Your task to perform on an android device: toggle notification dots Image 0: 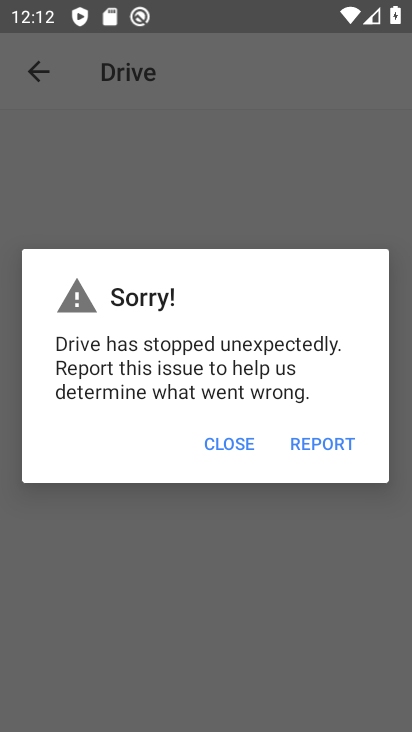
Step 0: press home button
Your task to perform on an android device: toggle notification dots Image 1: 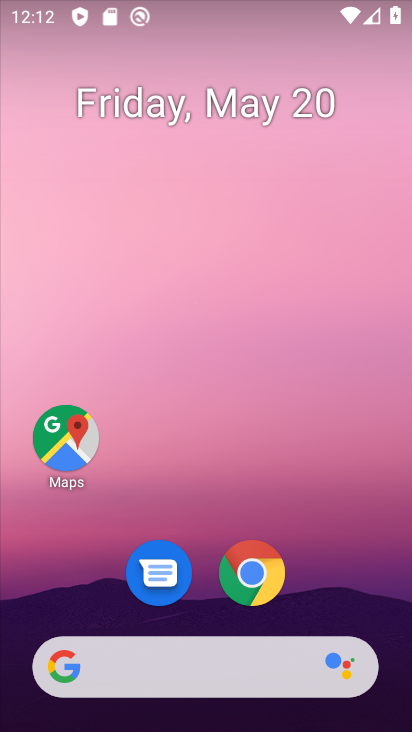
Step 1: drag from (339, 582) to (287, 192)
Your task to perform on an android device: toggle notification dots Image 2: 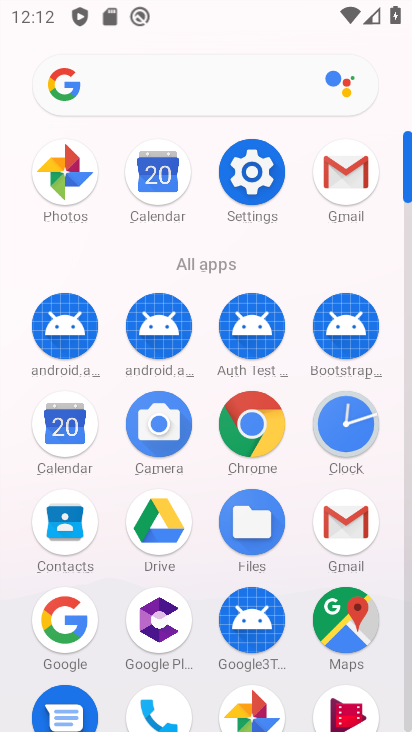
Step 2: click (252, 180)
Your task to perform on an android device: toggle notification dots Image 3: 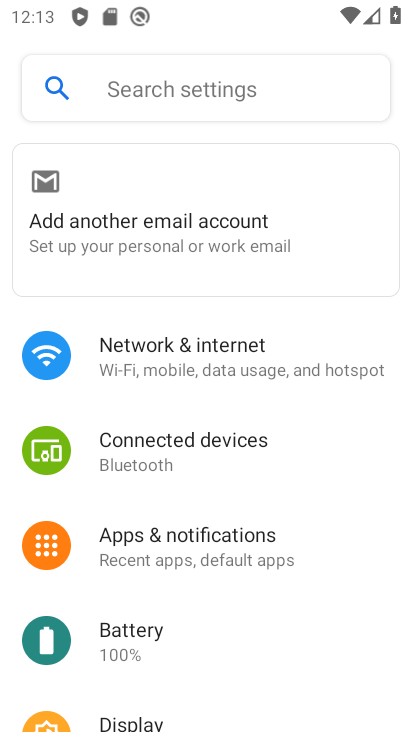
Step 3: click (189, 521)
Your task to perform on an android device: toggle notification dots Image 4: 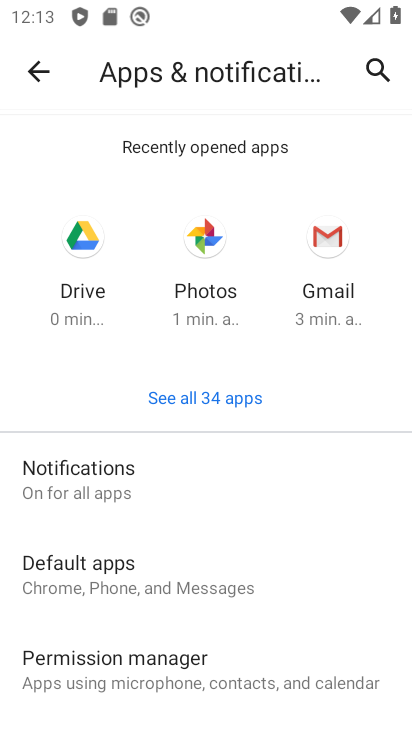
Step 4: click (93, 466)
Your task to perform on an android device: toggle notification dots Image 5: 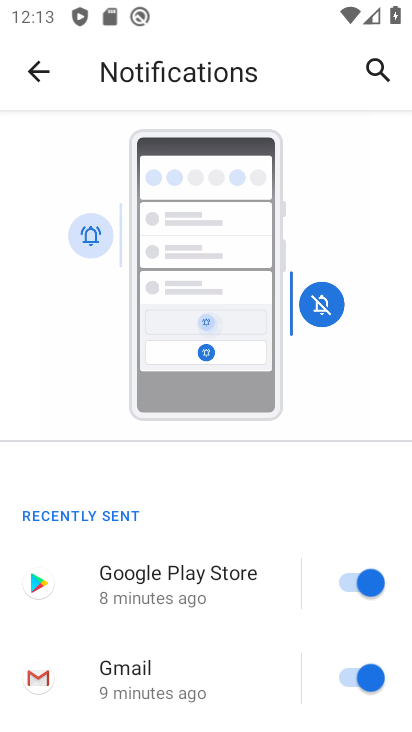
Step 5: drag from (215, 494) to (217, 106)
Your task to perform on an android device: toggle notification dots Image 6: 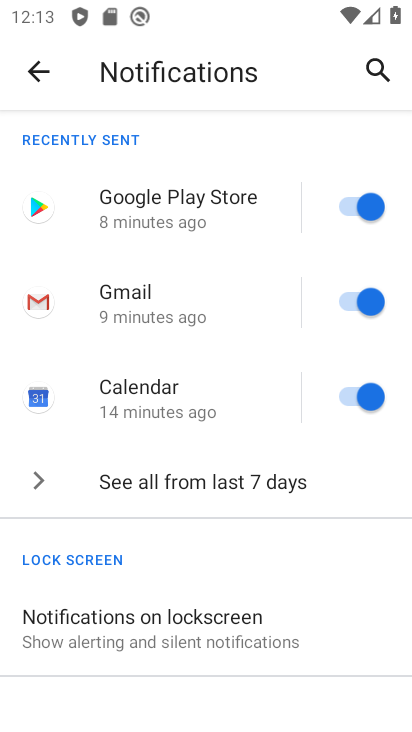
Step 6: drag from (263, 591) to (265, 289)
Your task to perform on an android device: toggle notification dots Image 7: 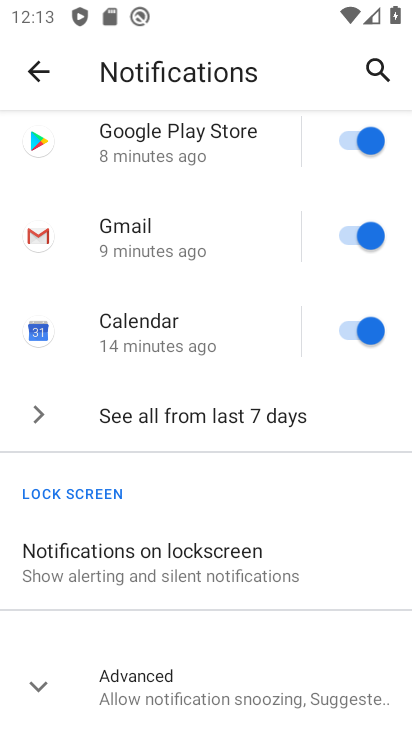
Step 7: click (29, 684)
Your task to perform on an android device: toggle notification dots Image 8: 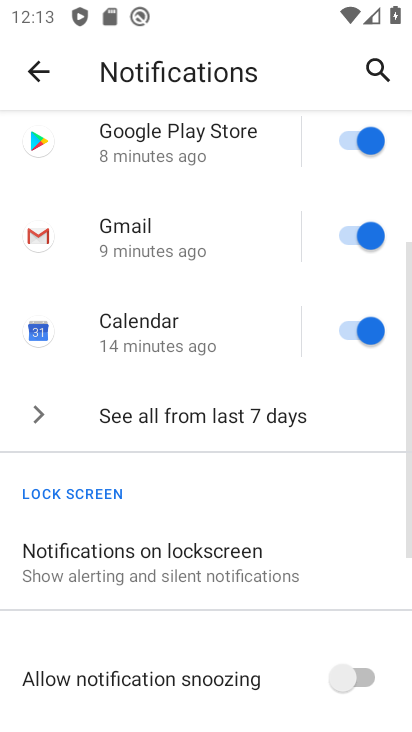
Step 8: drag from (174, 617) to (160, 299)
Your task to perform on an android device: toggle notification dots Image 9: 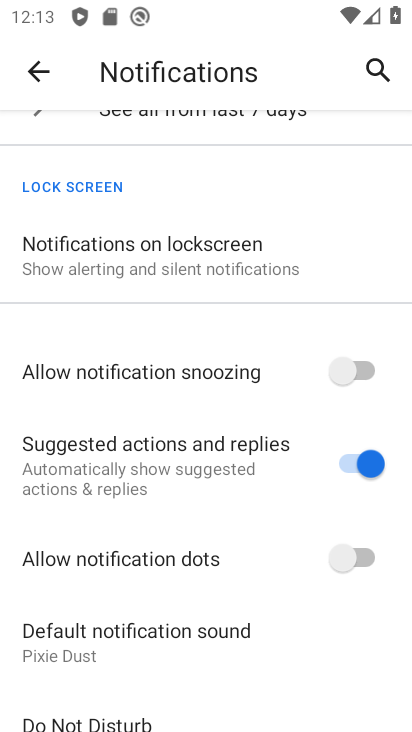
Step 9: click (335, 553)
Your task to perform on an android device: toggle notification dots Image 10: 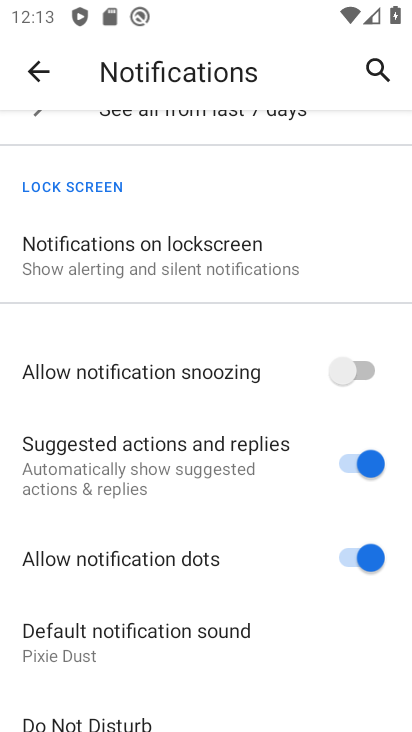
Step 10: task complete